Your task to perform on an android device: remove spam from my inbox in the gmail app Image 0: 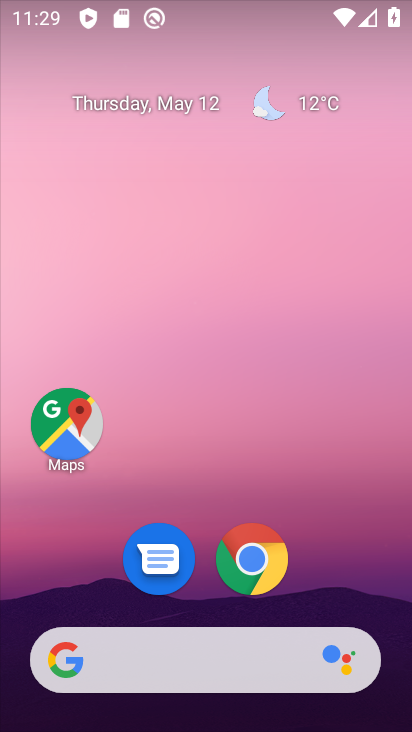
Step 0: drag from (70, 608) to (212, 142)
Your task to perform on an android device: remove spam from my inbox in the gmail app Image 1: 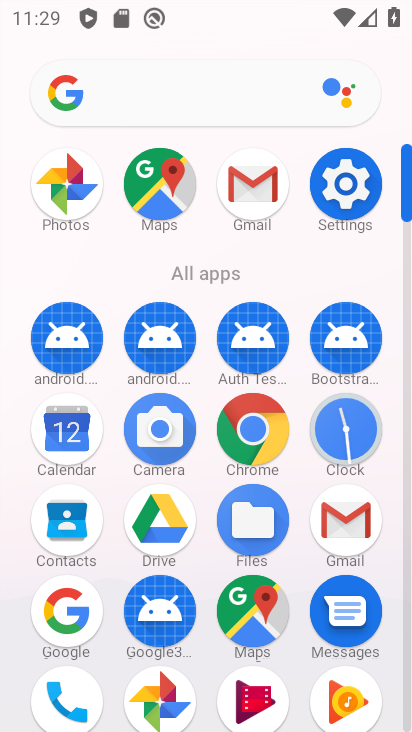
Step 1: click (355, 536)
Your task to perform on an android device: remove spam from my inbox in the gmail app Image 2: 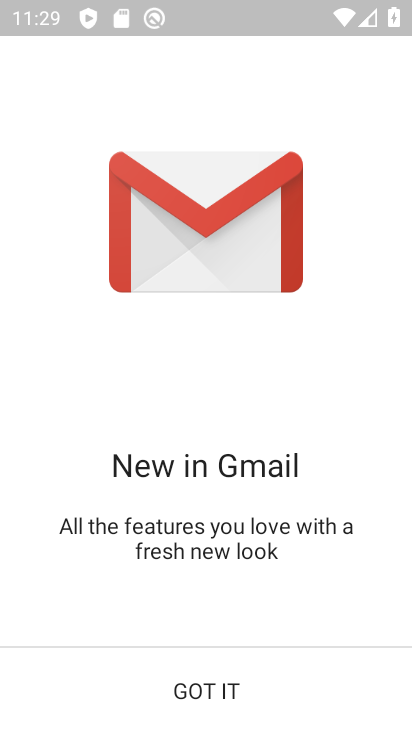
Step 2: click (253, 694)
Your task to perform on an android device: remove spam from my inbox in the gmail app Image 3: 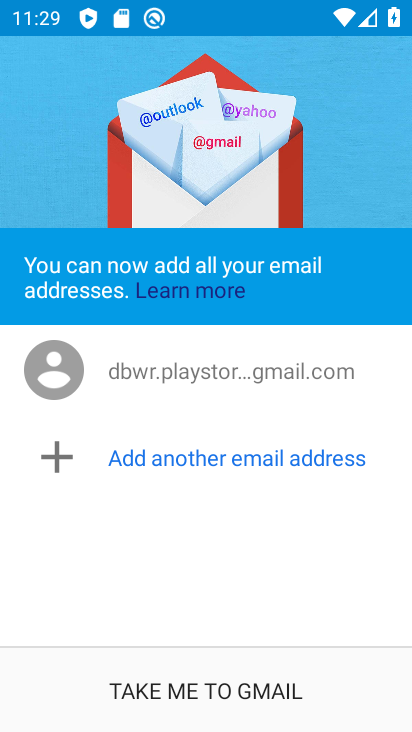
Step 3: click (269, 692)
Your task to perform on an android device: remove spam from my inbox in the gmail app Image 4: 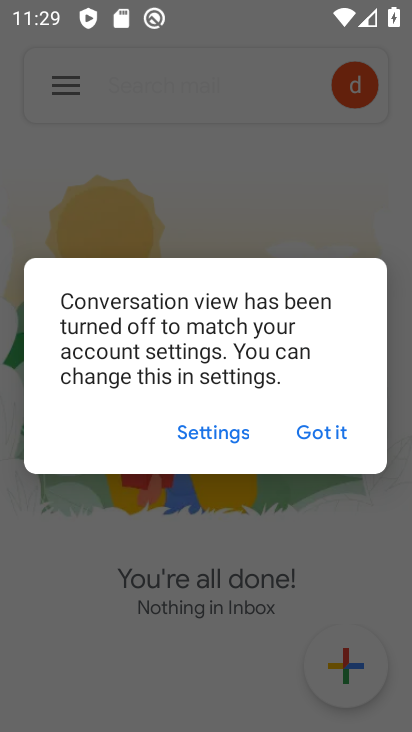
Step 4: click (327, 435)
Your task to perform on an android device: remove spam from my inbox in the gmail app Image 5: 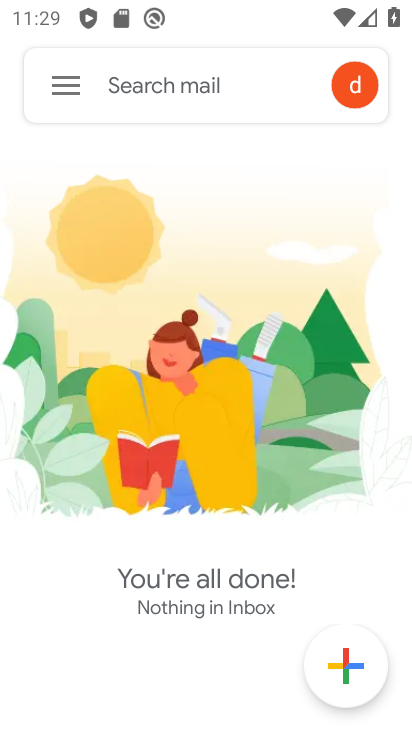
Step 5: click (84, 89)
Your task to perform on an android device: remove spam from my inbox in the gmail app Image 6: 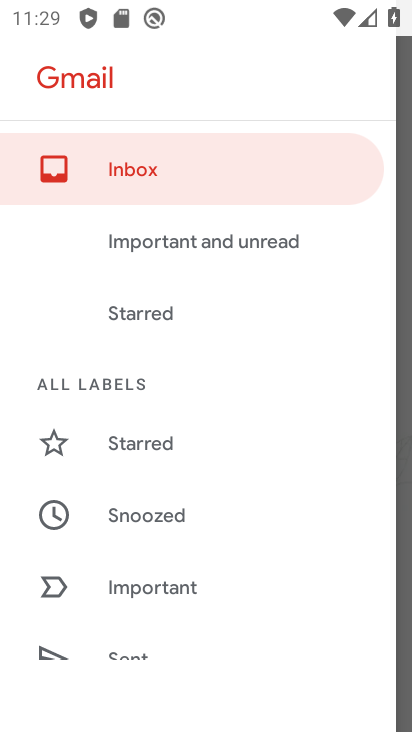
Step 6: drag from (160, 572) to (279, 191)
Your task to perform on an android device: remove spam from my inbox in the gmail app Image 7: 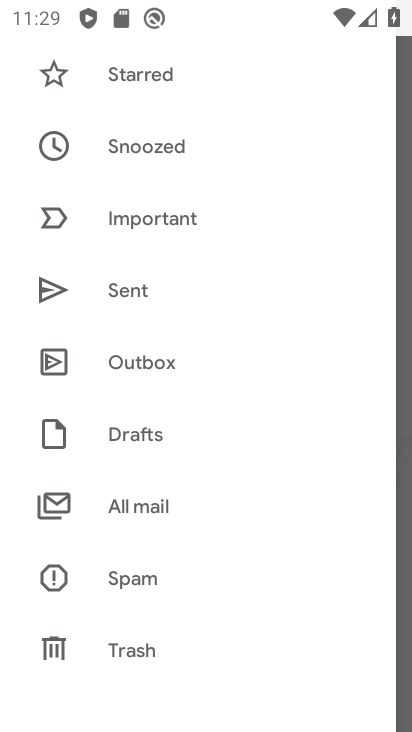
Step 7: click (180, 583)
Your task to perform on an android device: remove spam from my inbox in the gmail app Image 8: 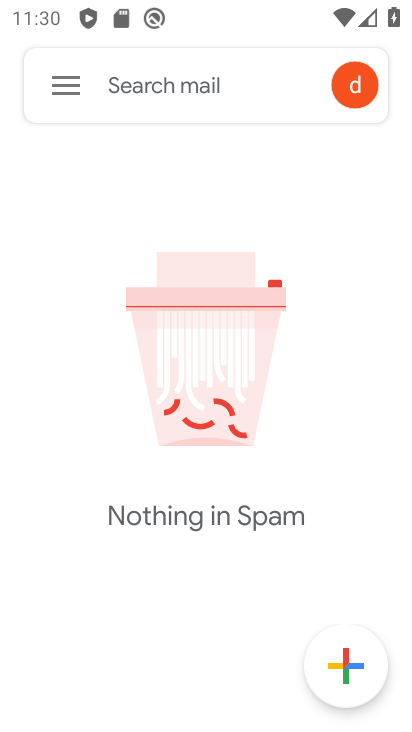
Step 8: task complete